Your task to perform on an android device: manage bookmarks in the chrome app Image 0: 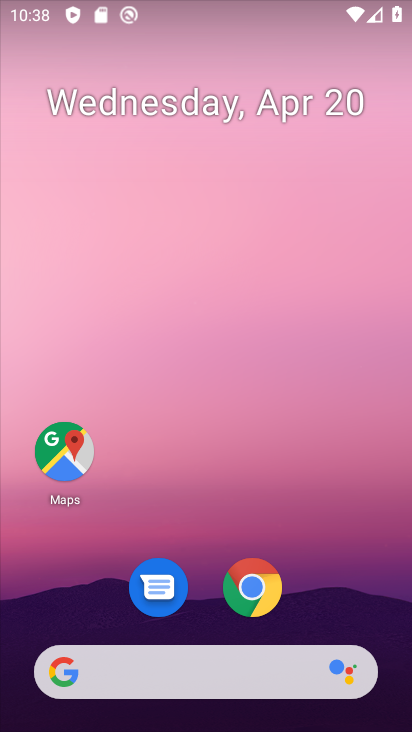
Step 0: drag from (319, 475) to (242, 27)
Your task to perform on an android device: manage bookmarks in the chrome app Image 1: 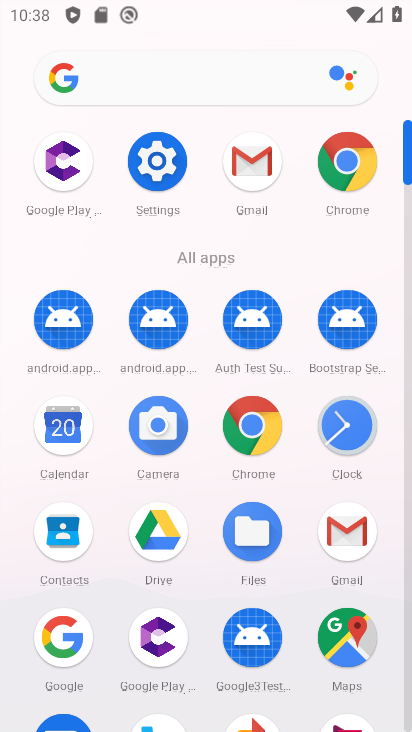
Step 1: click (343, 153)
Your task to perform on an android device: manage bookmarks in the chrome app Image 2: 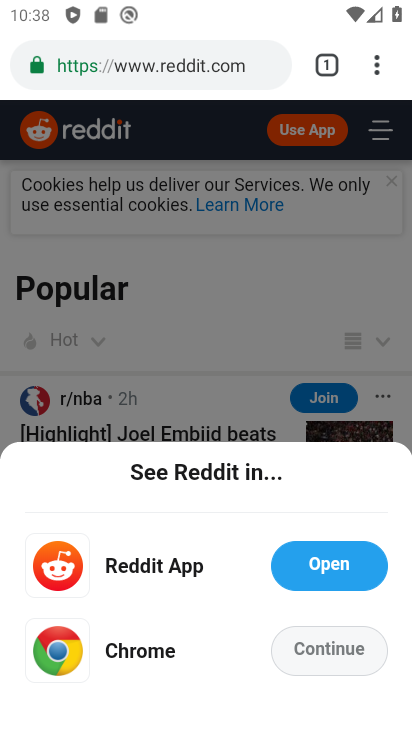
Step 2: task complete